Your task to perform on an android device: Open the calendar and show me this week's events? Image 0: 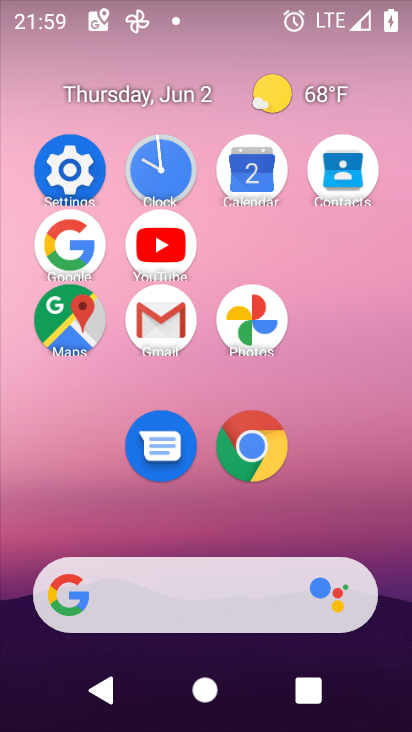
Step 0: click (266, 165)
Your task to perform on an android device: Open the calendar and show me this week's events? Image 1: 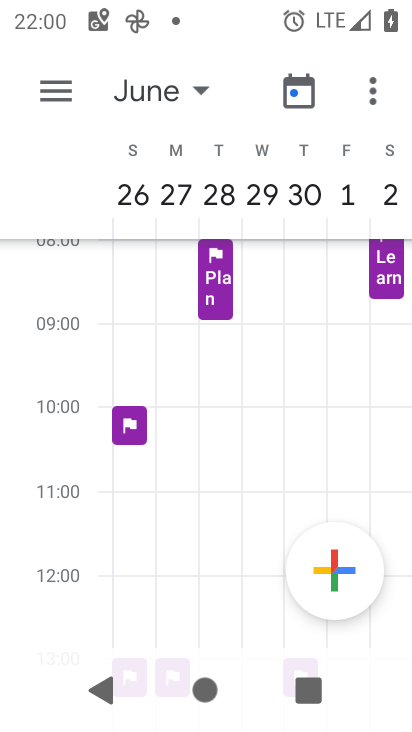
Step 1: task complete